Your task to perform on an android device: turn on sleep mode Image 0: 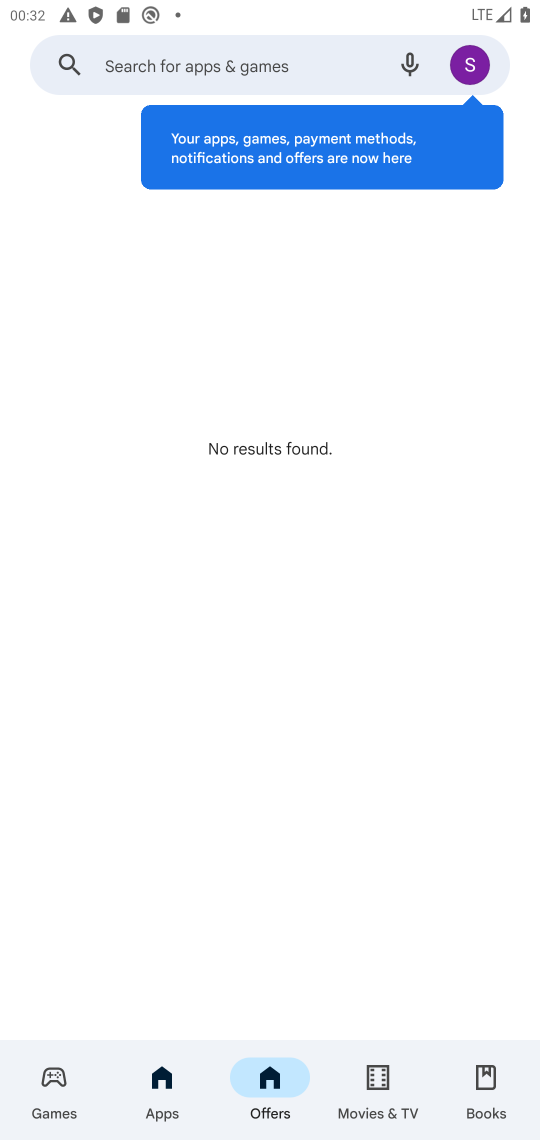
Step 0: press home button
Your task to perform on an android device: turn on sleep mode Image 1: 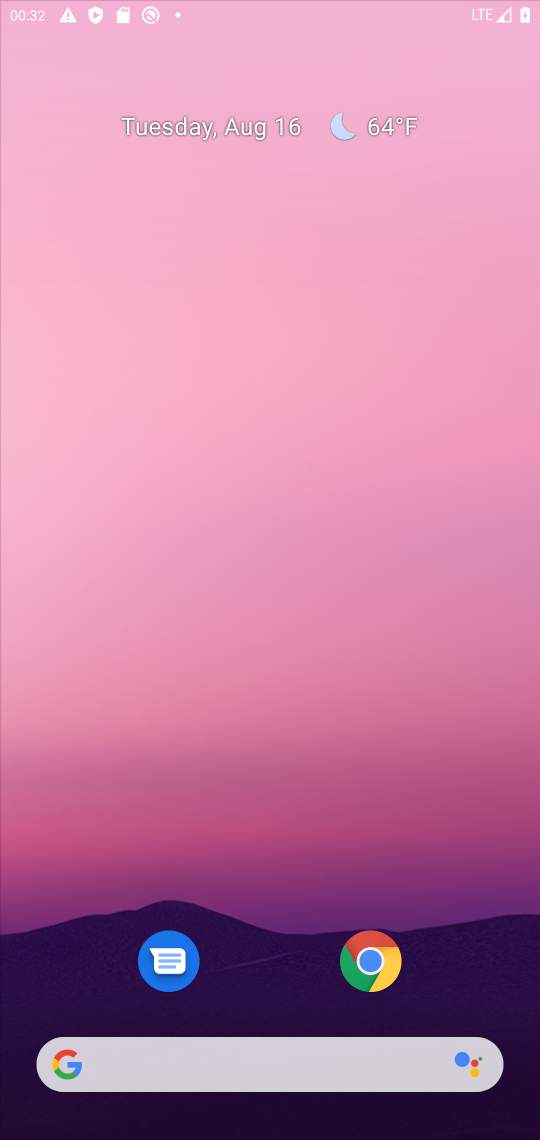
Step 1: drag from (198, 877) to (217, 695)
Your task to perform on an android device: turn on sleep mode Image 2: 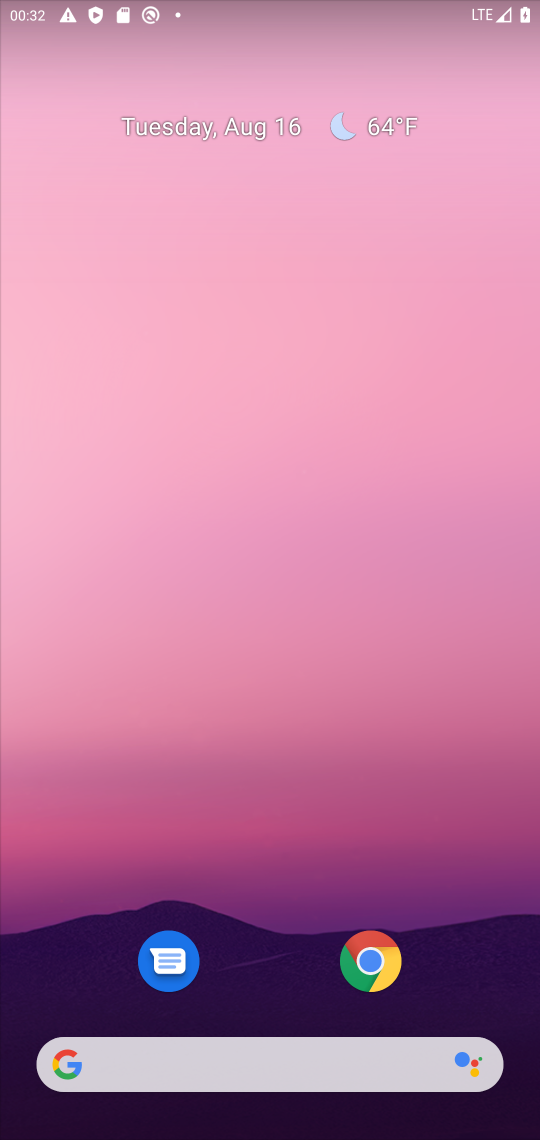
Step 2: drag from (49, 958) to (31, 259)
Your task to perform on an android device: turn on sleep mode Image 3: 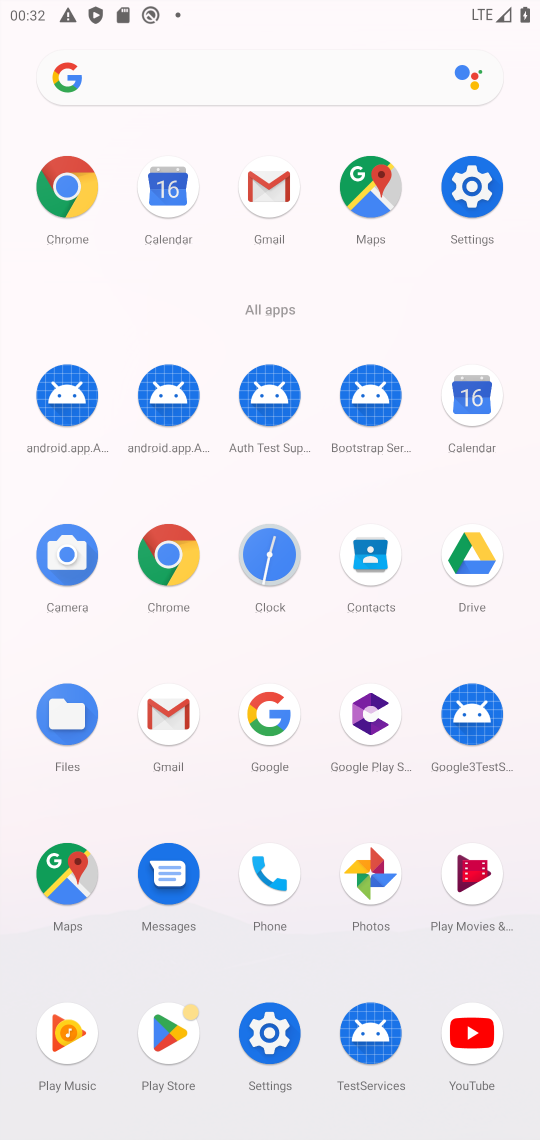
Step 3: click (494, 191)
Your task to perform on an android device: turn on sleep mode Image 4: 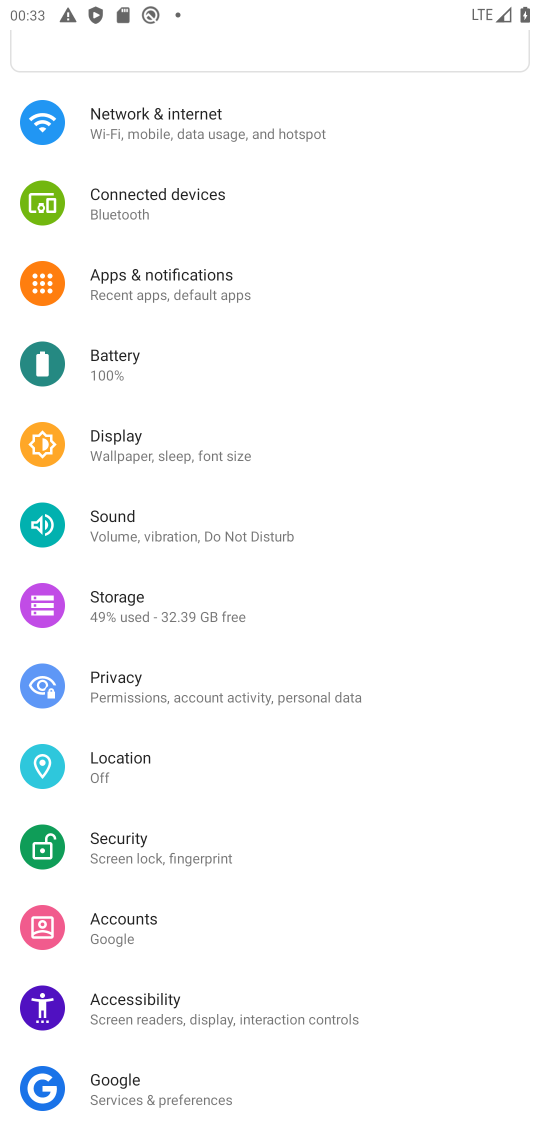
Step 4: click (119, 447)
Your task to perform on an android device: turn on sleep mode Image 5: 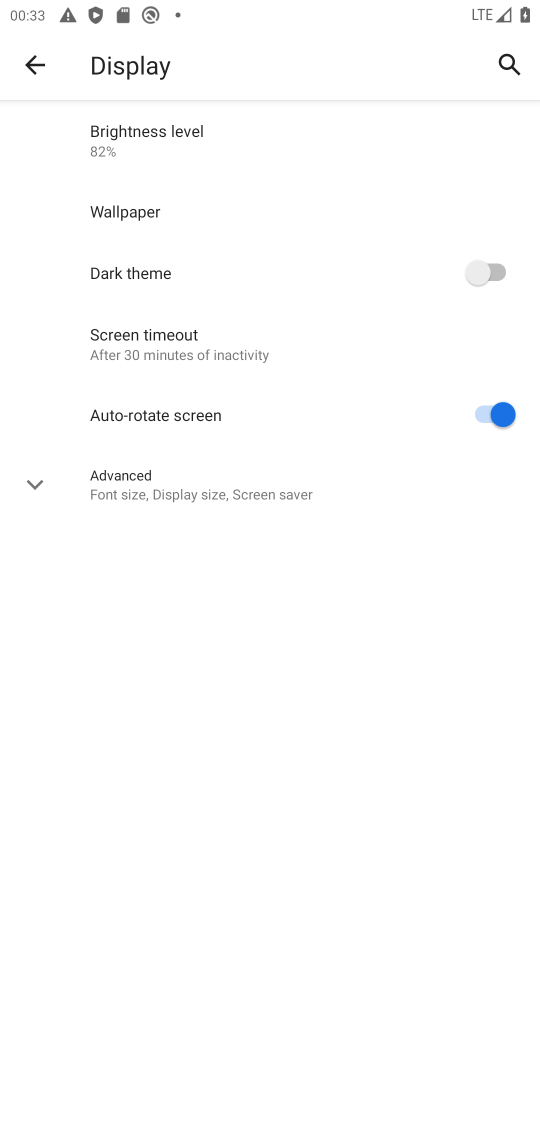
Step 5: task complete